Your task to perform on an android device: Open calendar and show me the fourth week of next month Image 0: 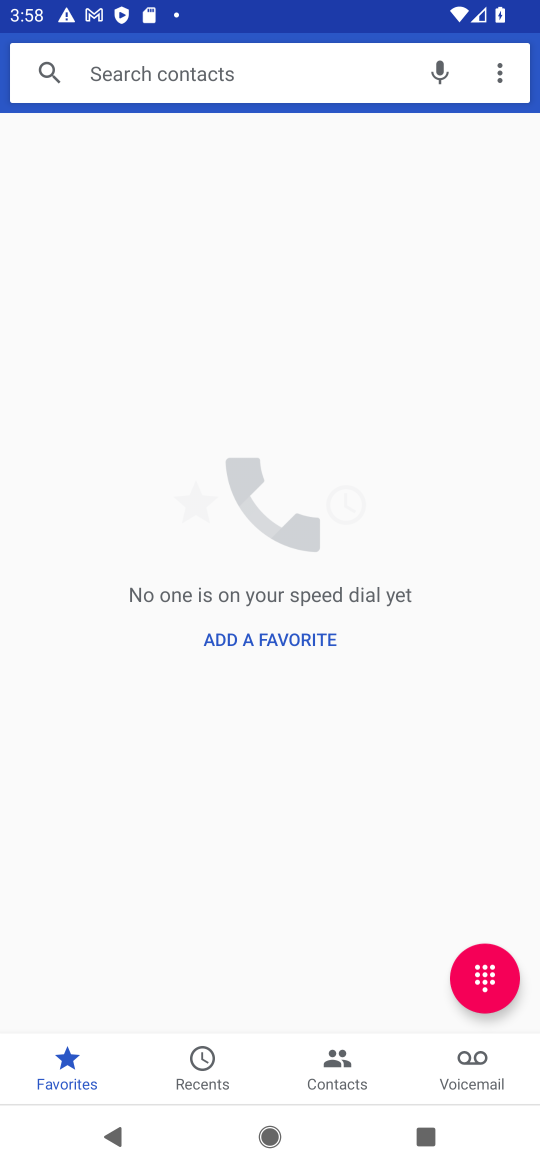
Step 0: press home button
Your task to perform on an android device: Open calendar and show me the fourth week of next month Image 1: 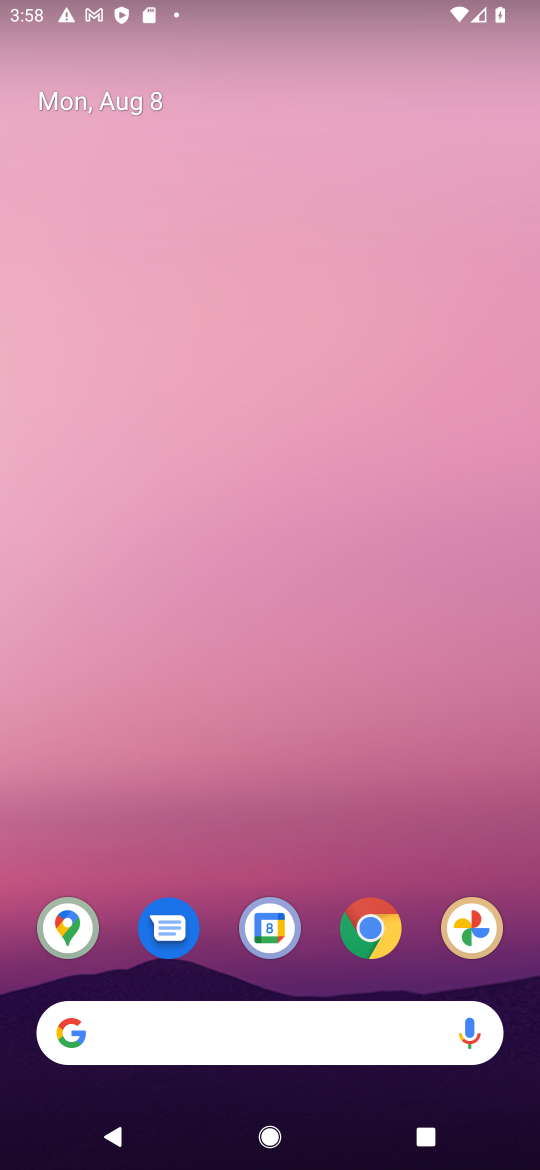
Step 1: drag from (414, 888) to (349, 102)
Your task to perform on an android device: Open calendar and show me the fourth week of next month Image 2: 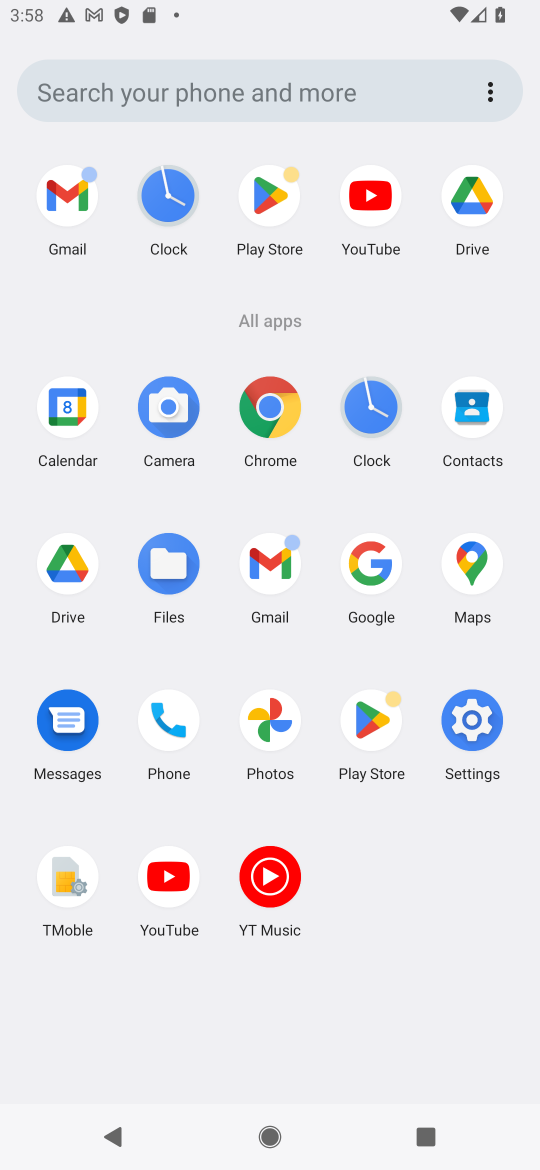
Step 2: click (63, 415)
Your task to perform on an android device: Open calendar and show me the fourth week of next month Image 3: 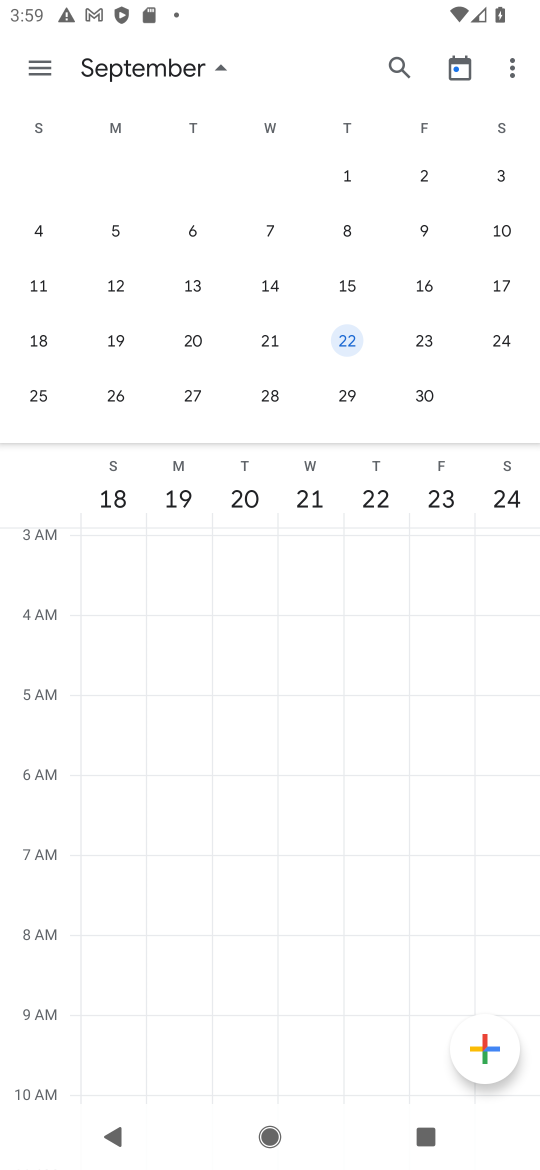
Step 3: click (262, 395)
Your task to perform on an android device: Open calendar and show me the fourth week of next month Image 4: 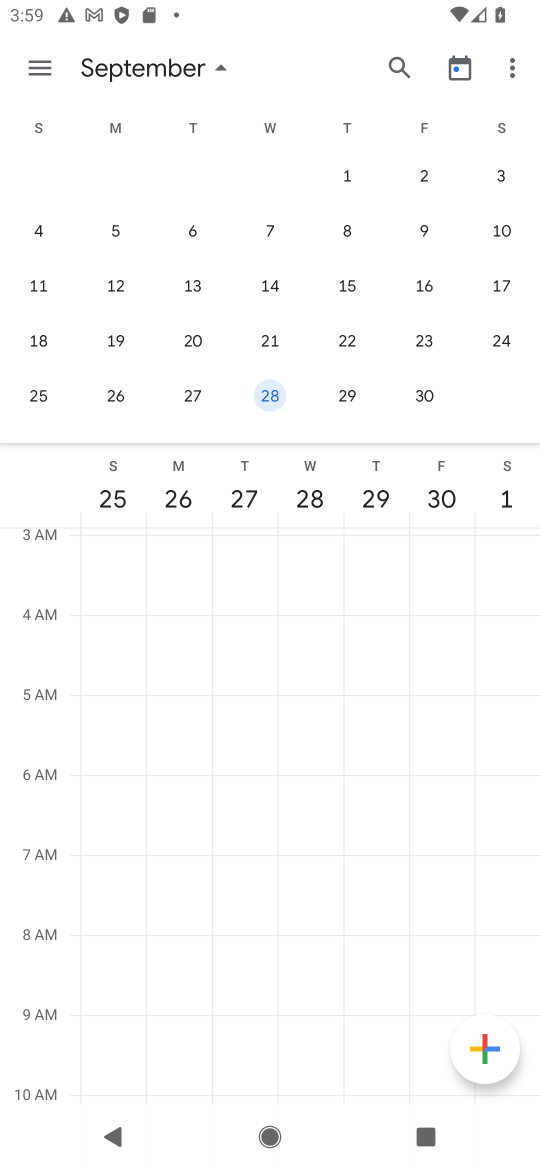
Step 4: task complete